Your task to perform on an android device: Open sound settings Image 0: 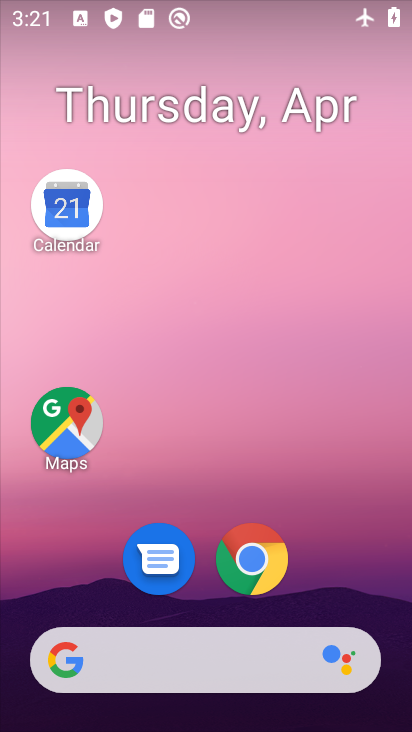
Step 0: drag from (299, 605) to (348, 51)
Your task to perform on an android device: Open sound settings Image 1: 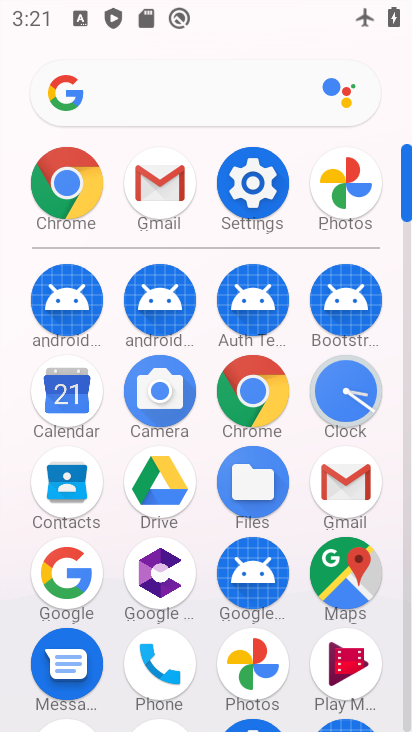
Step 1: click (264, 189)
Your task to perform on an android device: Open sound settings Image 2: 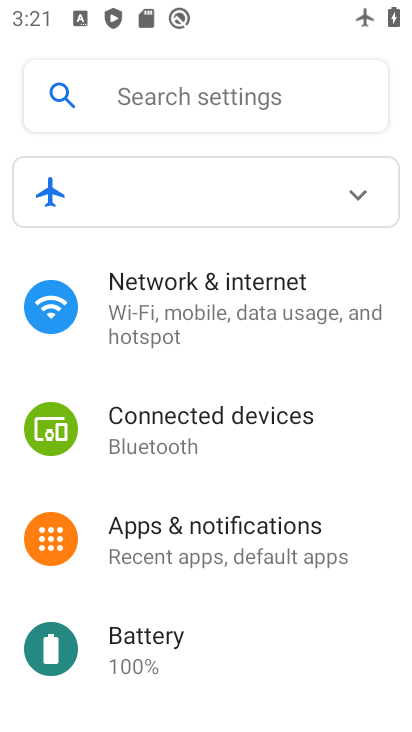
Step 2: drag from (288, 508) to (275, 158)
Your task to perform on an android device: Open sound settings Image 3: 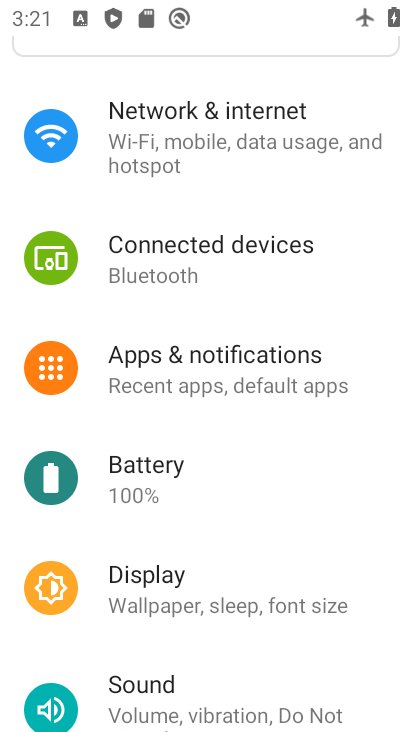
Step 3: drag from (241, 521) to (293, 120)
Your task to perform on an android device: Open sound settings Image 4: 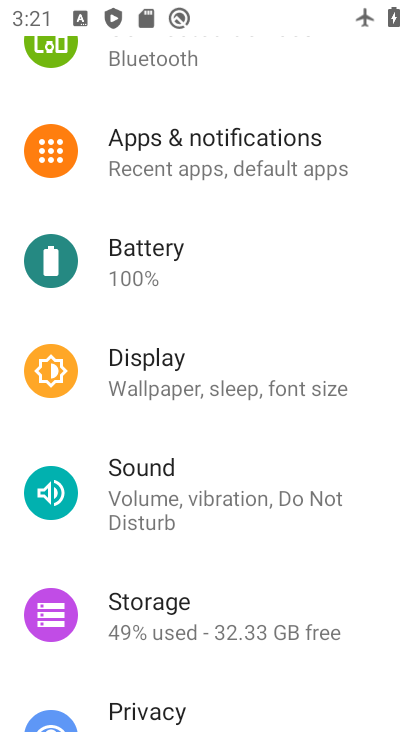
Step 4: click (168, 488)
Your task to perform on an android device: Open sound settings Image 5: 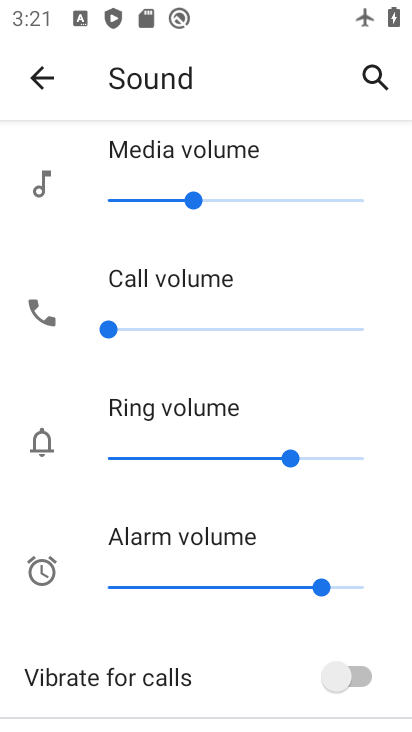
Step 5: task complete